Your task to perform on an android device: change the clock display to show seconds Image 0: 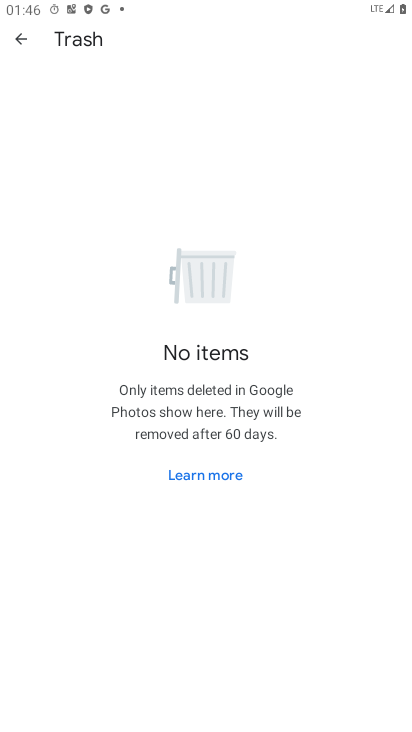
Step 0: press home button
Your task to perform on an android device: change the clock display to show seconds Image 1: 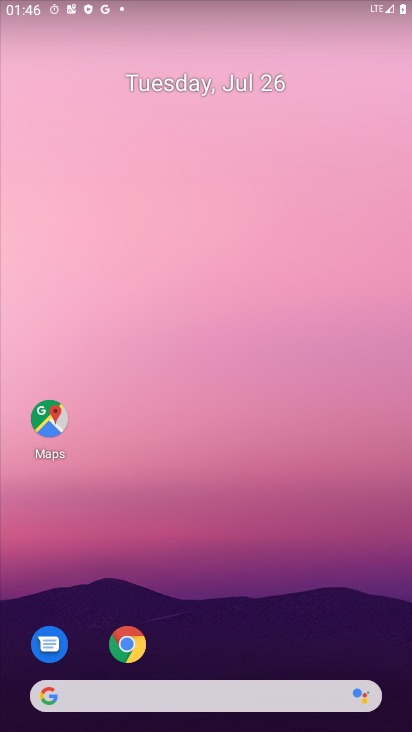
Step 1: drag from (264, 665) to (267, 54)
Your task to perform on an android device: change the clock display to show seconds Image 2: 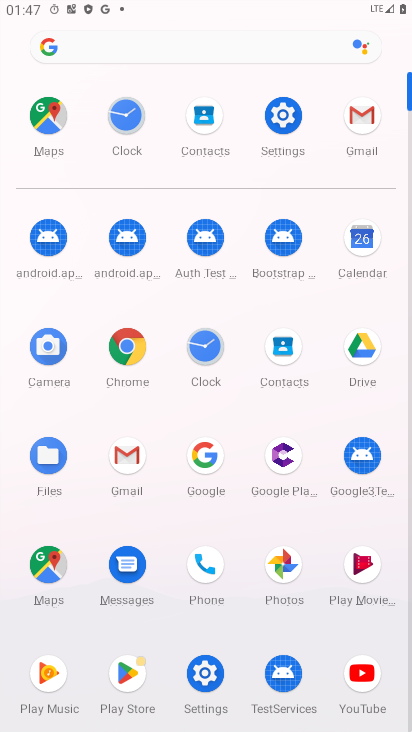
Step 2: click (126, 126)
Your task to perform on an android device: change the clock display to show seconds Image 3: 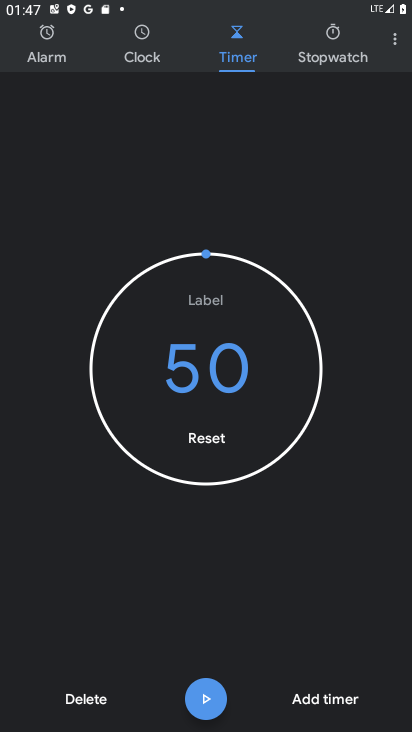
Step 3: click (396, 42)
Your task to perform on an android device: change the clock display to show seconds Image 4: 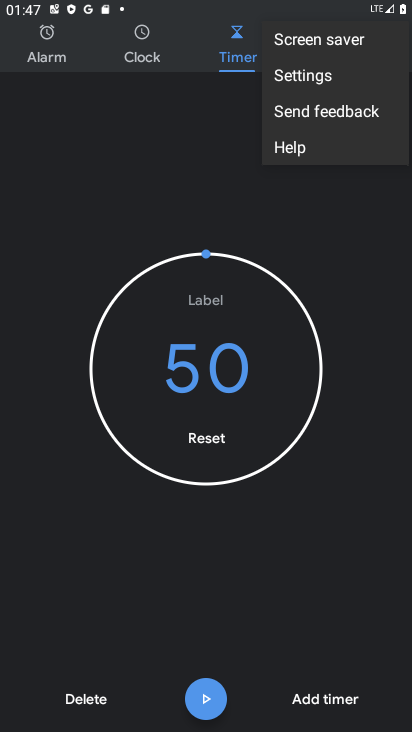
Step 4: click (299, 83)
Your task to perform on an android device: change the clock display to show seconds Image 5: 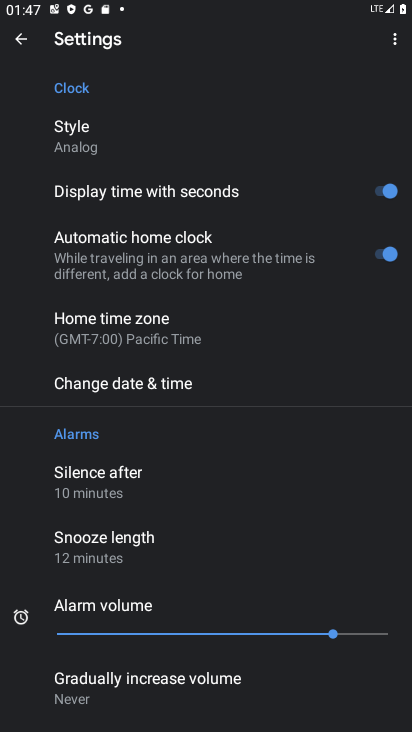
Step 5: task complete